Your task to perform on an android device: Open calendar and show me the second week of next month Image 0: 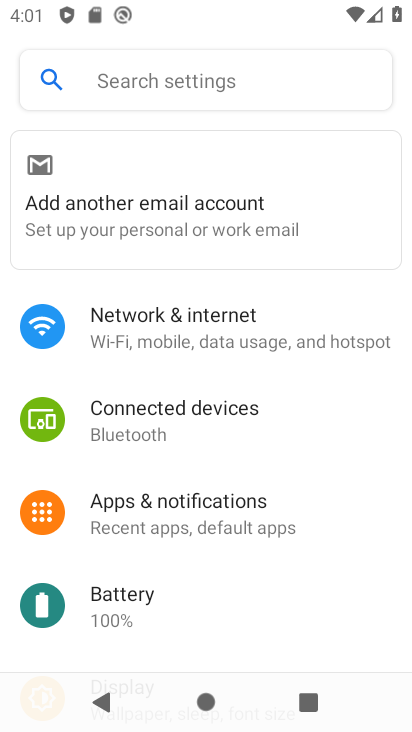
Step 0: press home button
Your task to perform on an android device: Open calendar and show me the second week of next month Image 1: 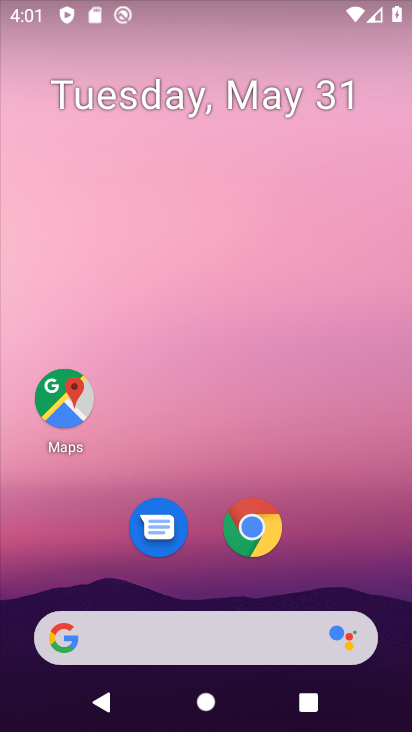
Step 1: drag from (390, 598) to (309, 115)
Your task to perform on an android device: Open calendar and show me the second week of next month Image 2: 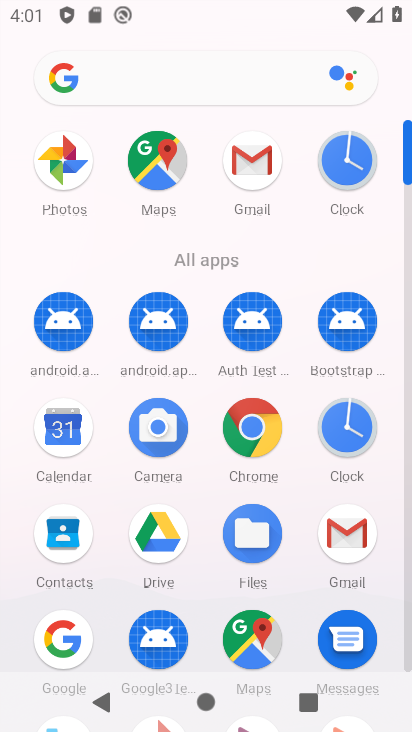
Step 2: click (57, 442)
Your task to perform on an android device: Open calendar and show me the second week of next month Image 3: 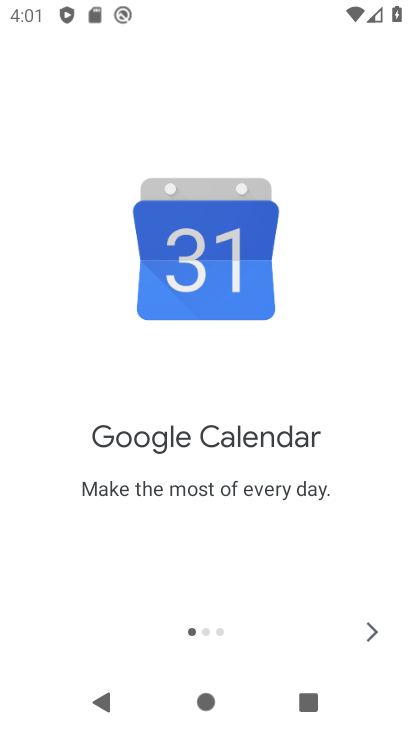
Step 3: click (382, 638)
Your task to perform on an android device: Open calendar and show me the second week of next month Image 4: 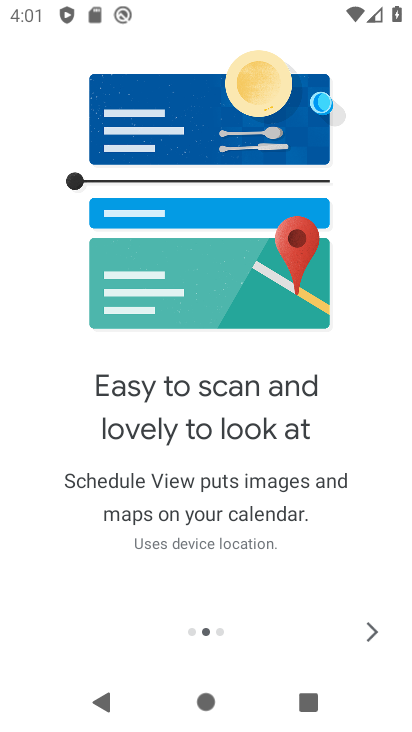
Step 4: click (382, 638)
Your task to perform on an android device: Open calendar and show me the second week of next month Image 5: 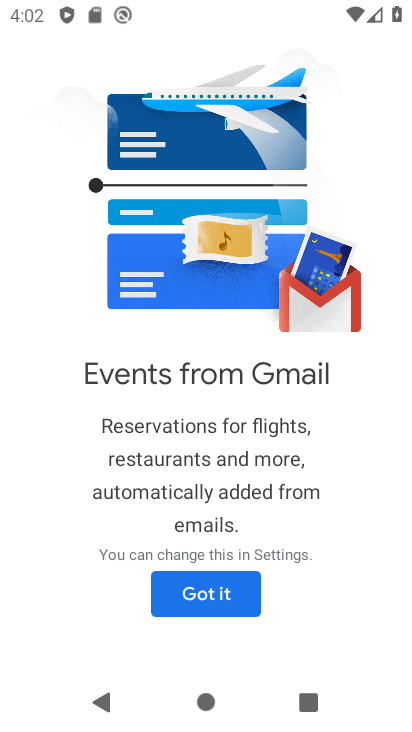
Step 5: click (245, 604)
Your task to perform on an android device: Open calendar and show me the second week of next month Image 6: 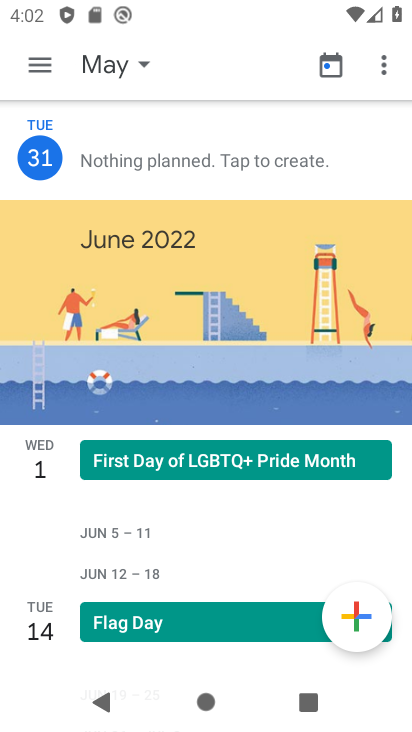
Step 6: click (130, 66)
Your task to perform on an android device: Open calendar and show me the second week of next month Image 7: 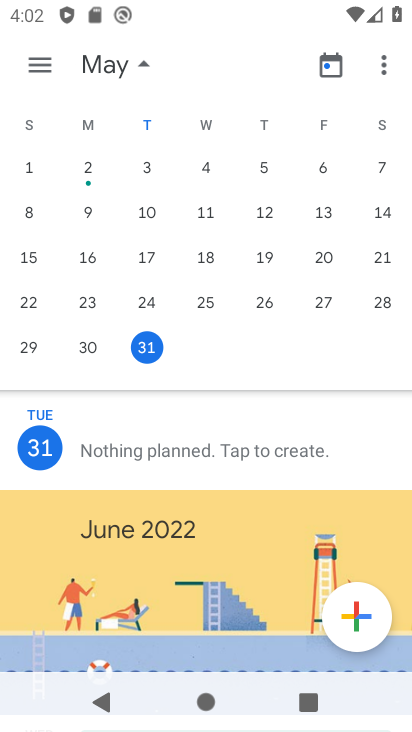
Step 7: drag from (381, 232) to (7, 238)
Your task to perform on an android device: Open calendar and show me the second week of next month Image 8: 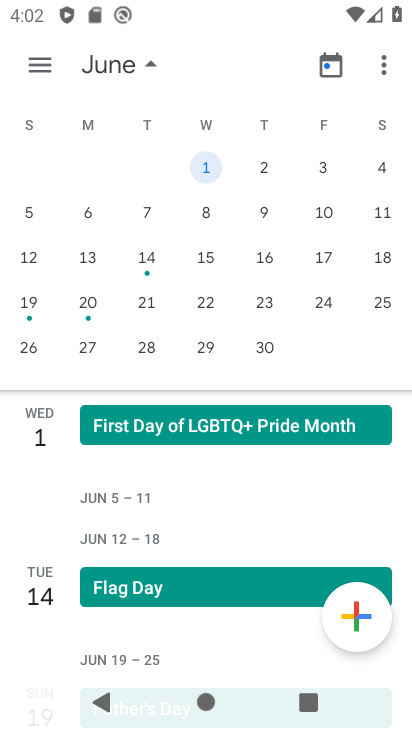
Step 8: click (207, 214)
Your task to perform on an android device: Open calendar and show me the second week of next month Image 9: 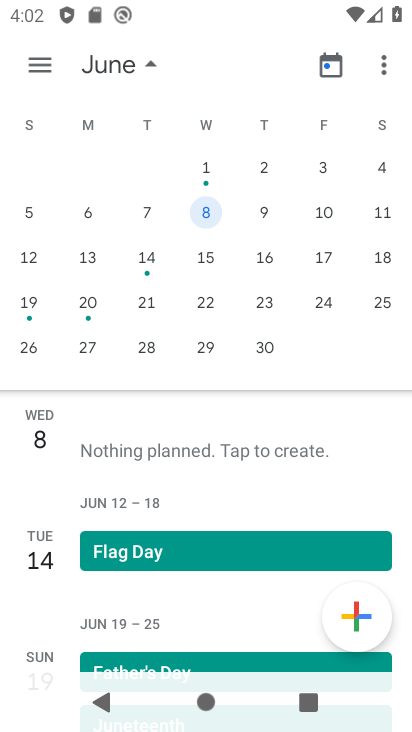
Step 9: click (45, 70)
Your task to perform on an android device: Open calendar and show me the second week of next month Image 10: 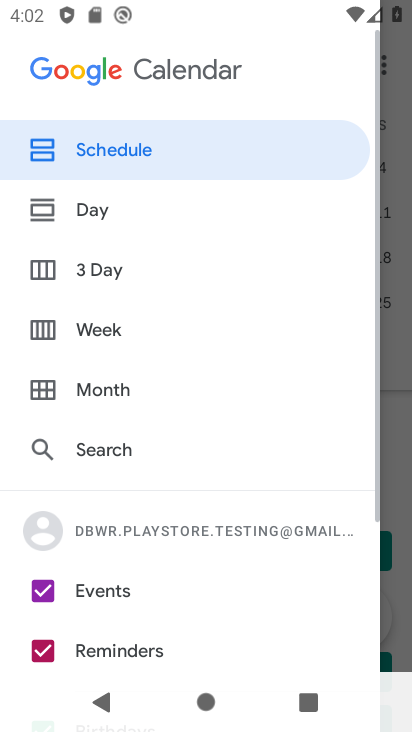
Step 10: click (106, 327)
Your task to perform on an android device: Open calendar and show me the second week of next month Image 11: 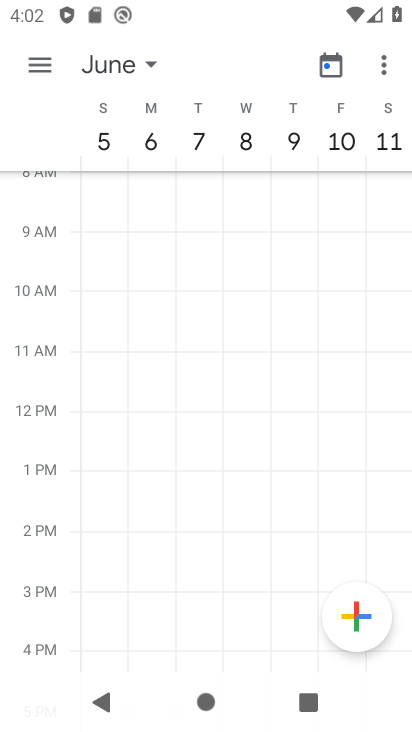
Step 11: task complete